Your task to perform on an android device: open app "Microsoft Authenticator" (install if not already installed), go to login, and select forgot password Image 0: 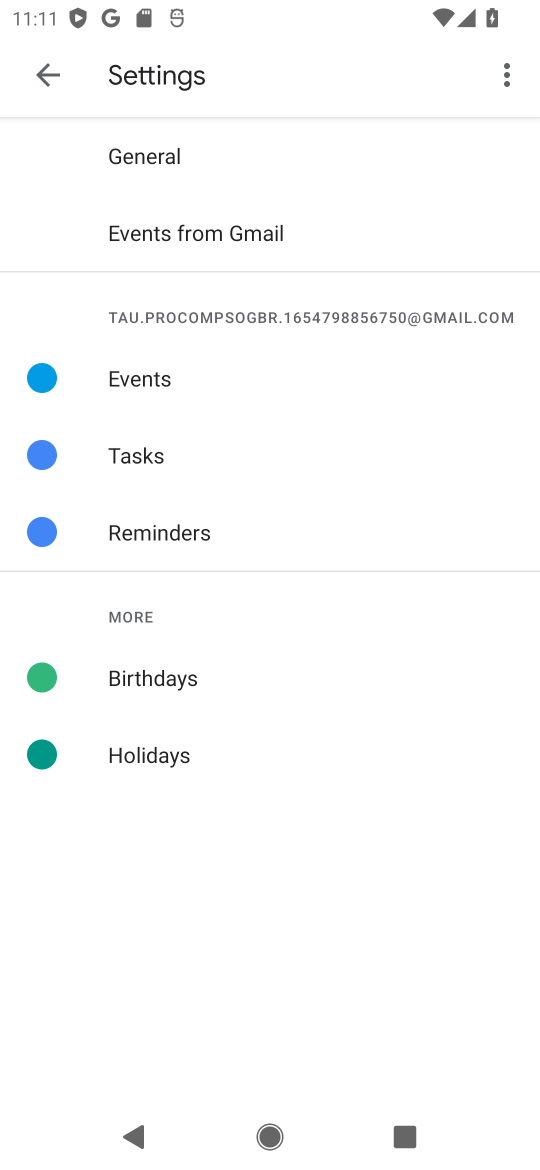
Step 0: press back button
Your task to perform on an android device: open app "Microsoft Authenticator" (install if not already installed), go to login, and select forgot password Image 1: 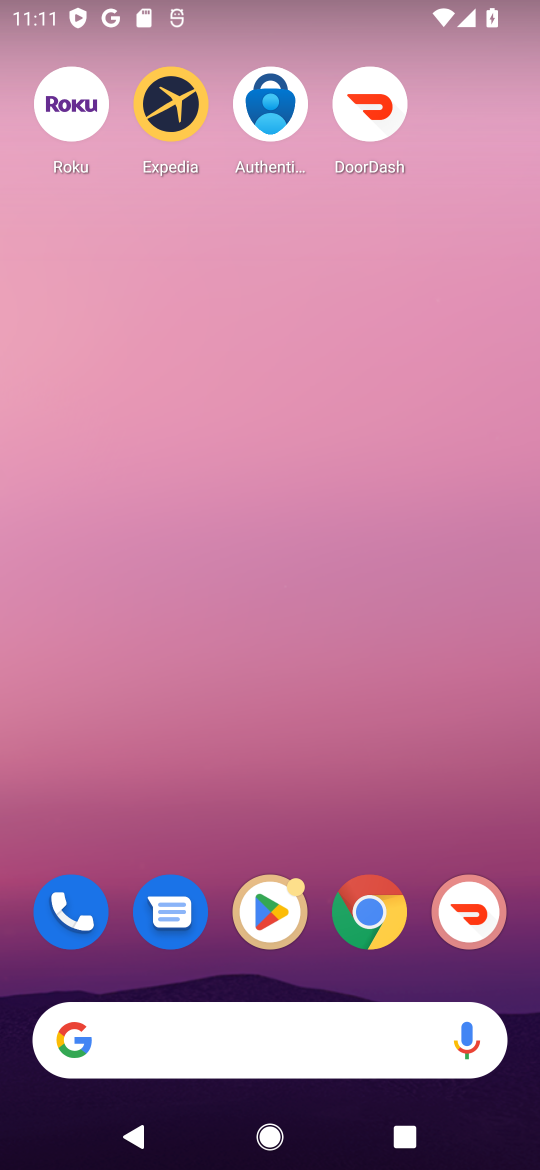
Step 1: click (298, 891)
Your task to perform on an android device: open app "Microsoft Authenticator" (install if not already installed), go to login, and select forgot password Image 2: 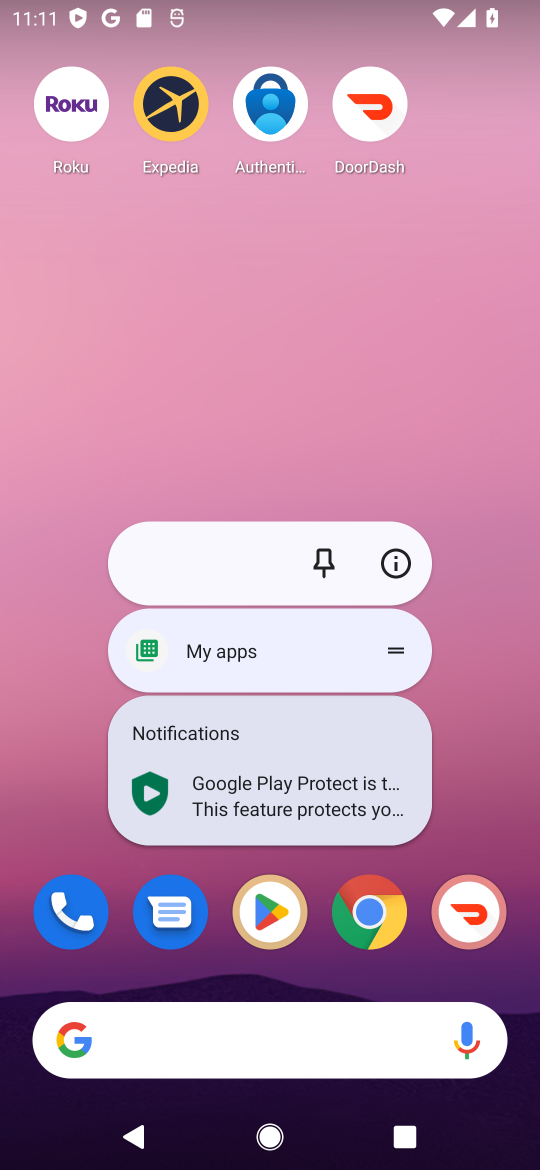
Step 2: click (275, 896)
Your task to perform on an android device: open app "Microsoft Authenticator" (install if not already installed), go to login, and select forgot password Image 3: 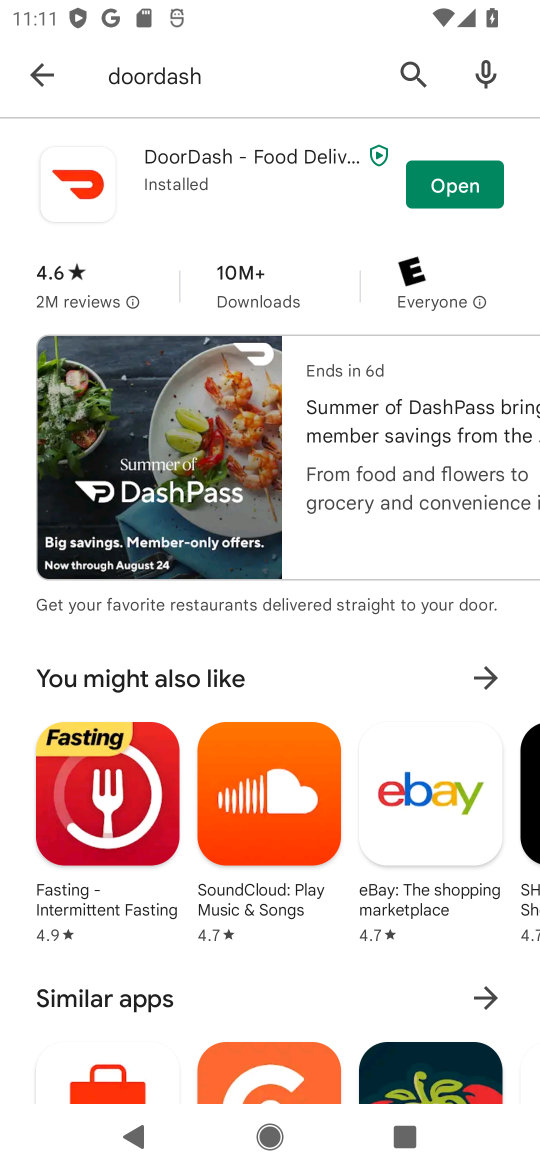
Step 3: click (395, 70)
Your task to perform on an android device: open app "Microsoft Authenticator" (install if not already installed), go to login, and select forgot password Image 4: 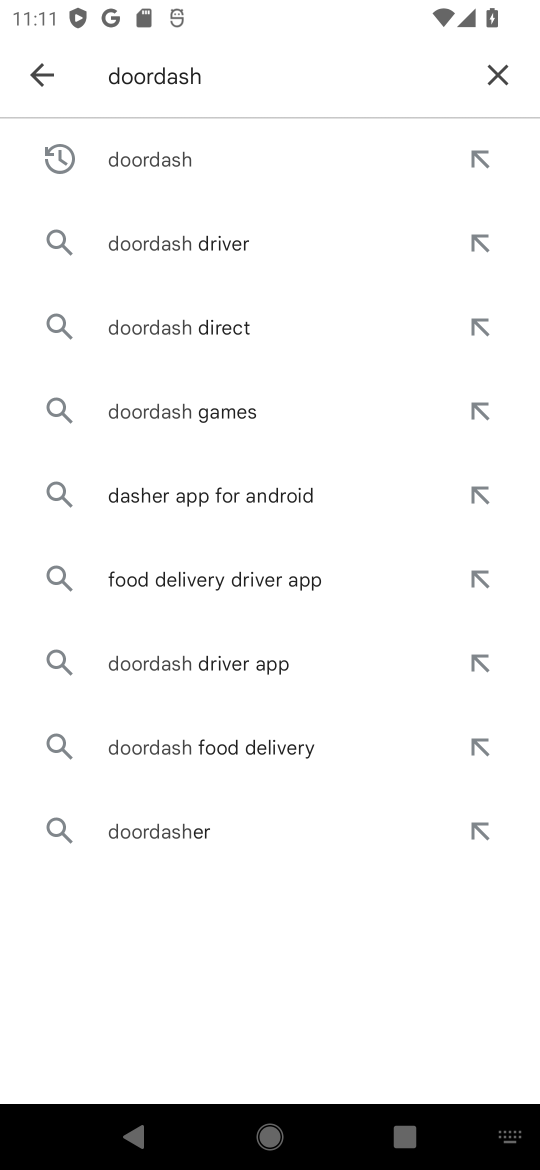
Step 4: click (485, 73)
Your task to perform on an android device: open app "Microsoft Authenticator" (install if not already installed), go to login, and select forgot password Image 5: 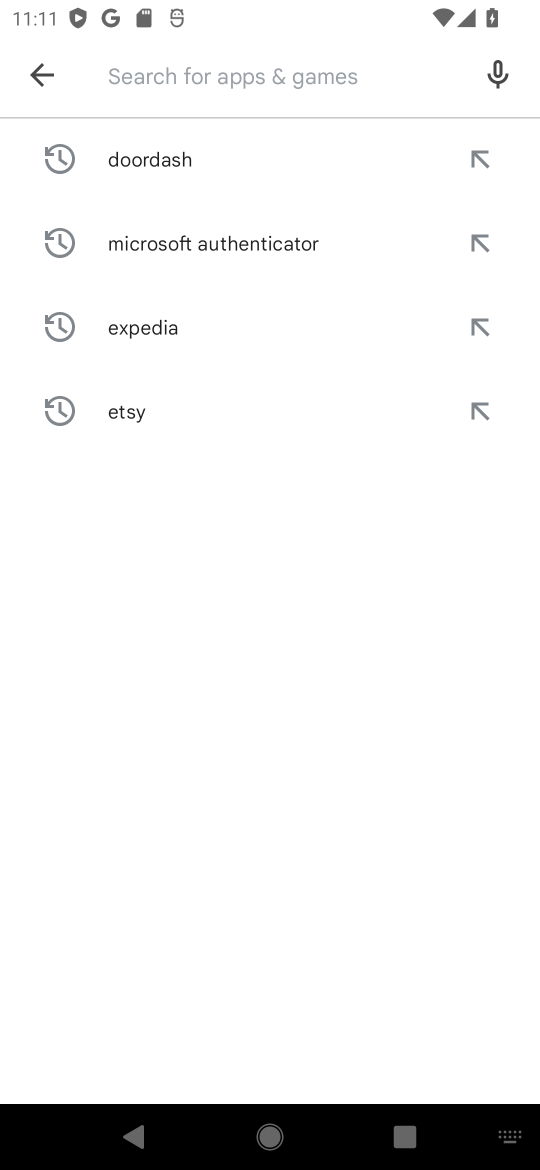
Step 5: click (136, 94)
Your task to perform on an android device: open app "Microsoft Authenticator" (install if not already installed), go to login, and select forgot password Image 6: 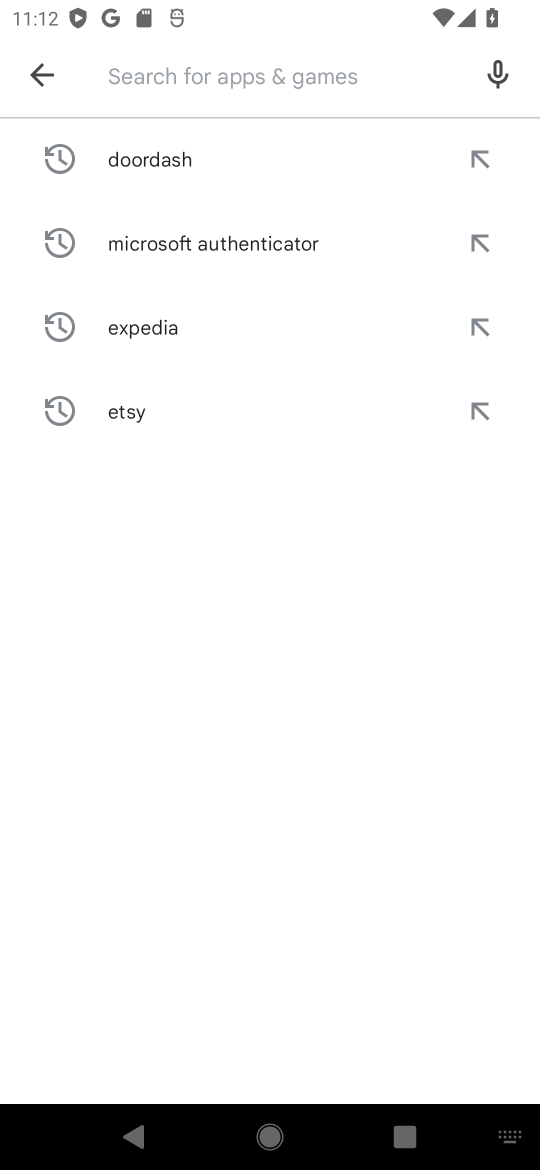
Step 6: type "Microsoft Authenticator"
Your task to perform on an android device: open app "Microsoft Authenticator" (install if not already installed), go to login, and select forgot password Image 7: 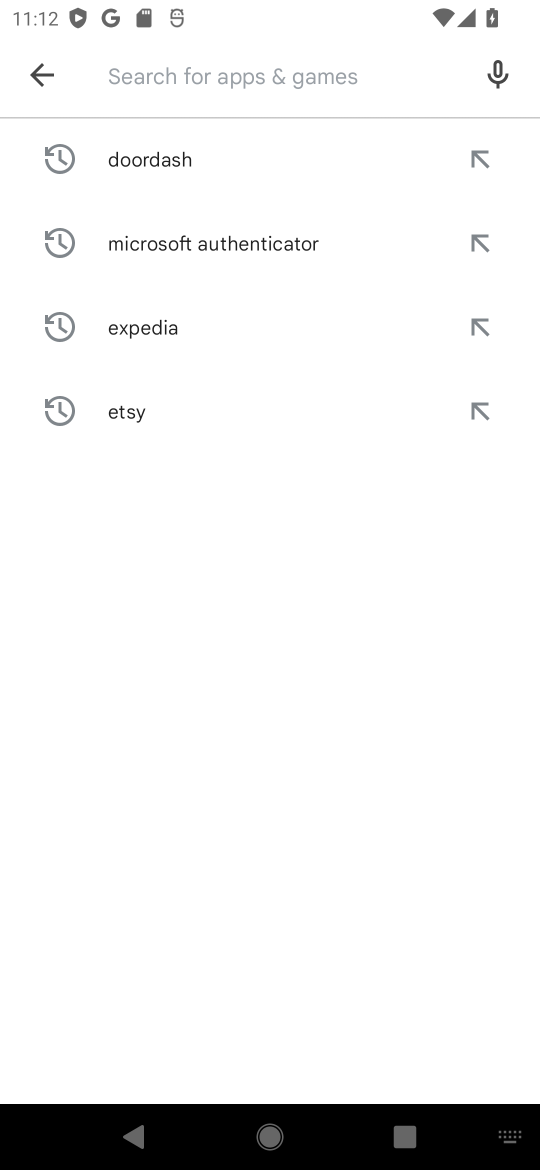
Step 7: click (224, 591)
Your task to perform on an android device: open app "Microsoft Authenticator" (install if not already installed), go to login, and select forgot password Image 8: 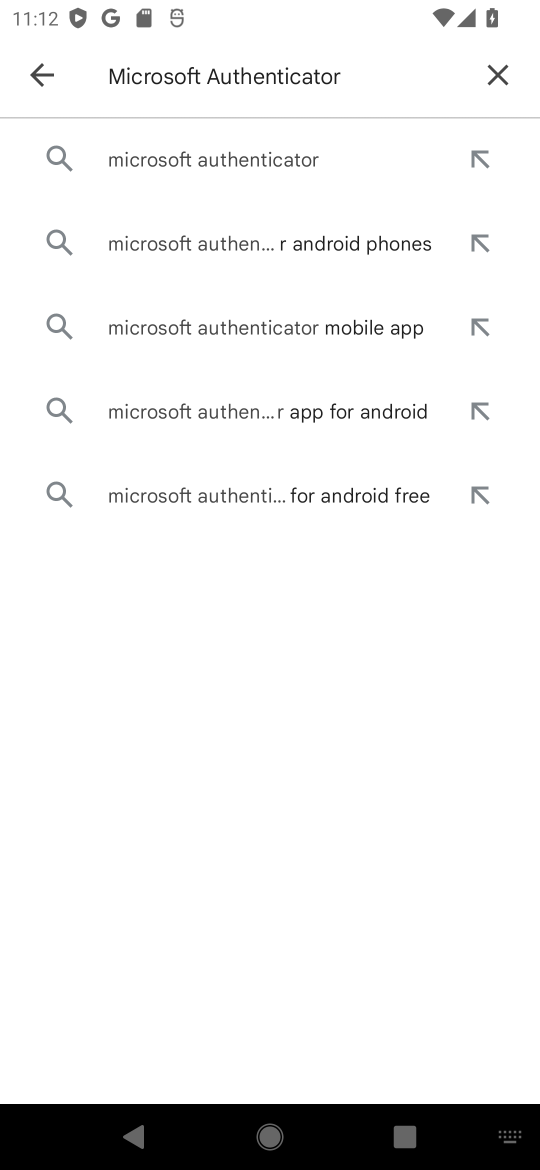
Step 8: click (287, 170)
Your task to perform on an android device: open app "Microsoft Authenticator" (install if not already installed), go to login, and select forgot password Image 9: 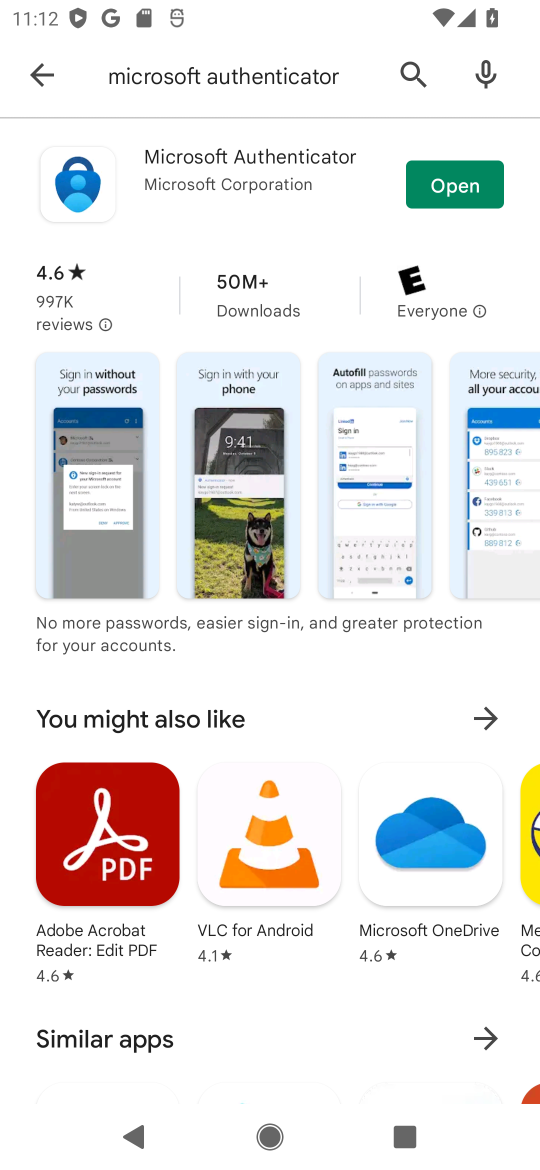
Step 9: click (449, 174)
Your task to perform on an android device: open app "Microsoft Authenticator" (install if not already installed), go to login, and select forgot password Image 10: 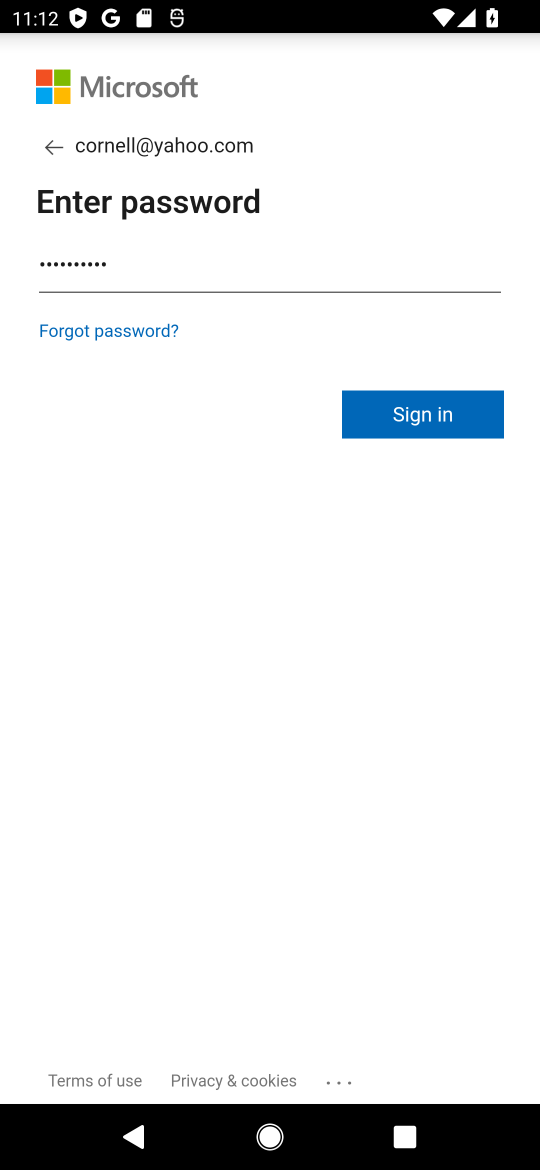
Step 10: click (106, 334)
Your task to perform on an android device: open app "Microsoft Authenticator" (install if not already installed), go to login, and select forgot password Image 11: 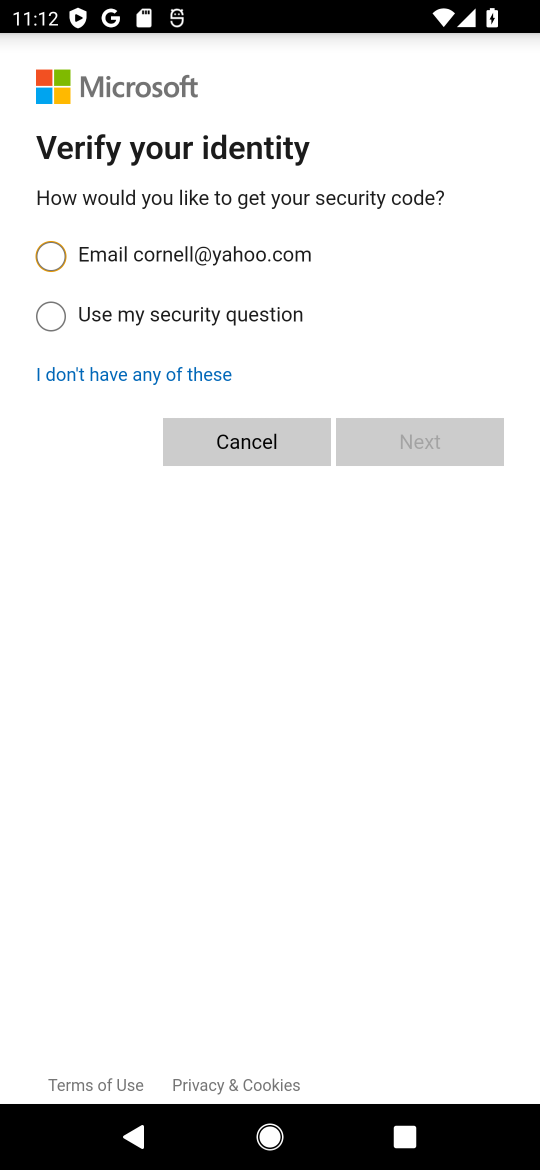
Step 11: task complete